Your task to perform on an android device: toggle priority inbox in the gmail app Image 0: 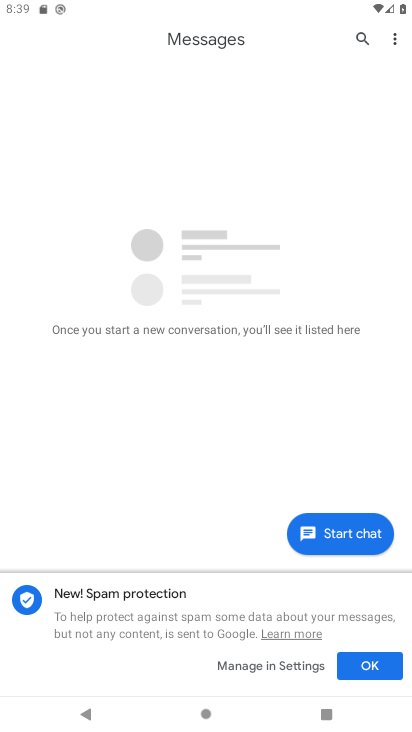
Step 0: press home button
Your task to perform on an android device: toggle priority inbox in the gmail app Image 1: 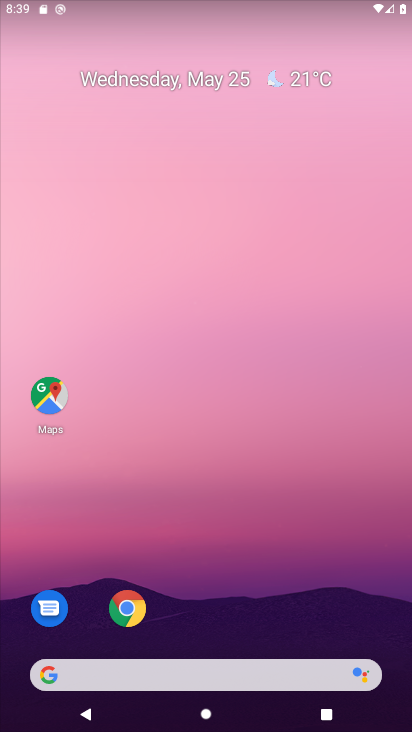
Step 1: drag from (222, 561) to (222, 31)
Your task to perform on an android device: toggle priority inbox in the gmail app Image 2: 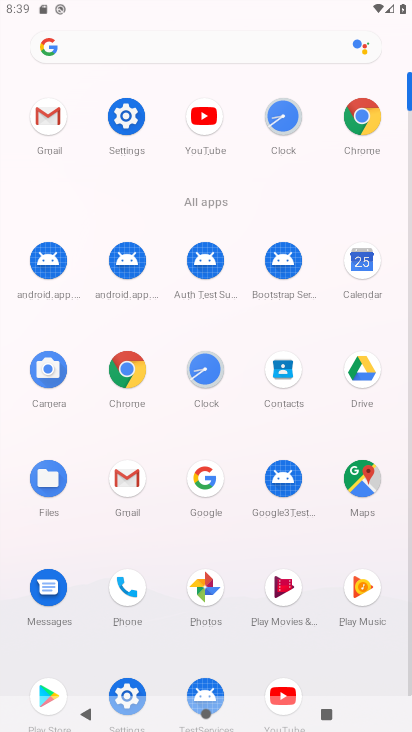
Step 2: click (115, 473)
Your task to perform on an android device: toggle priority inbox in the gmail app Image 3: 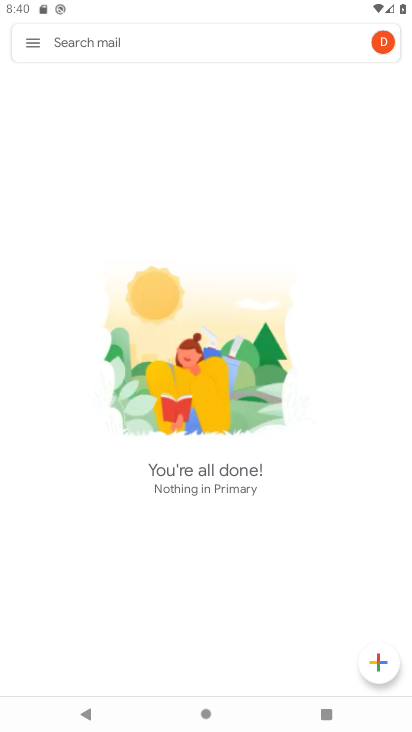
Step 3: click (33, 42)
Your task to perform on an android device: toggle priority inbox in the gmail app Image 4: 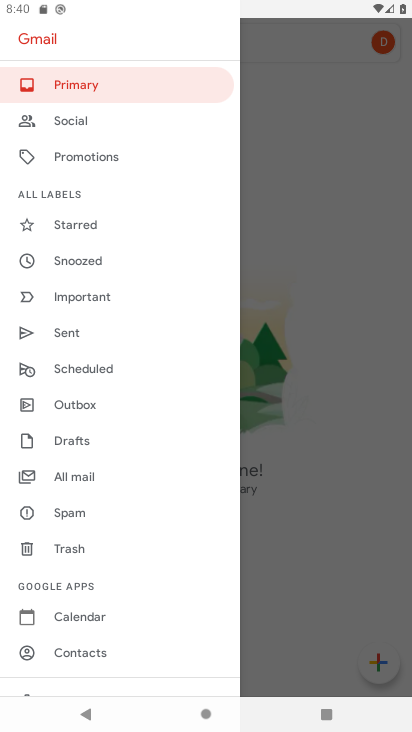
Step 4: drag from (86, 644) to (99, 223)
Your task to perform on an android device: toggle priority inbox in the gmail app Image 5: 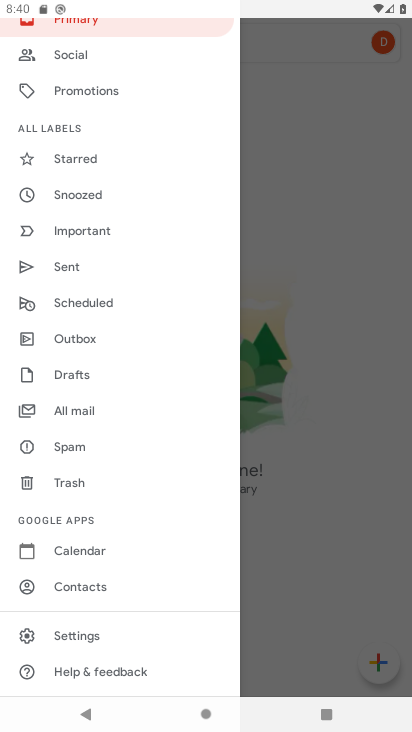
Step 5: click (71, 634)
Your task to perform on an android device: toggle priority inbox in the gmail app Image 6: 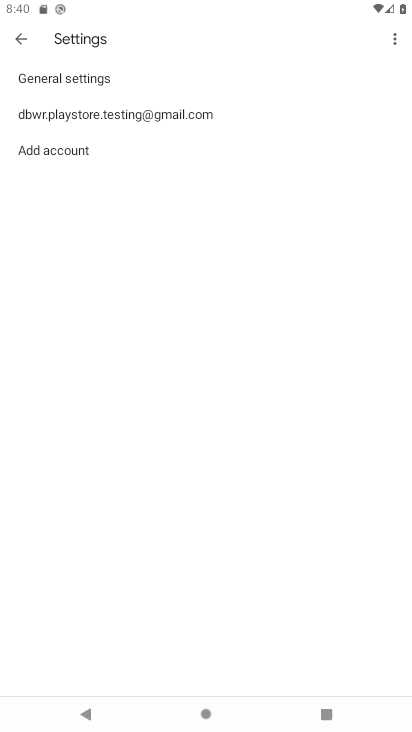
Step 6: click (124, 116)
Your task to perform on an android device: toggle priority inbox in the gmail app Image 7: 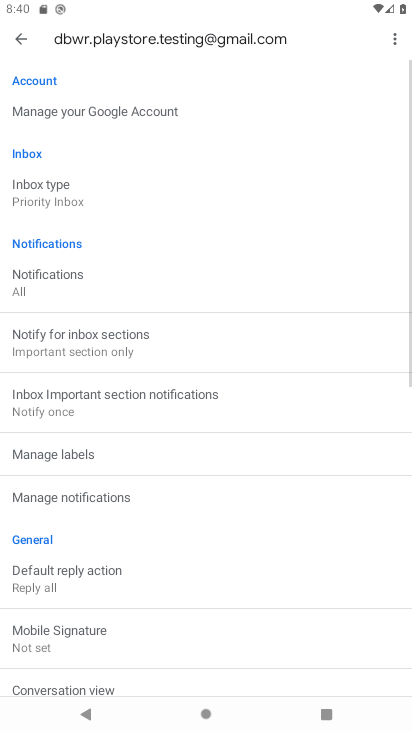
Step 7: click (71, 204)
Your task to perform on an android device: toggle priority inbox in the gmail app Image 8: 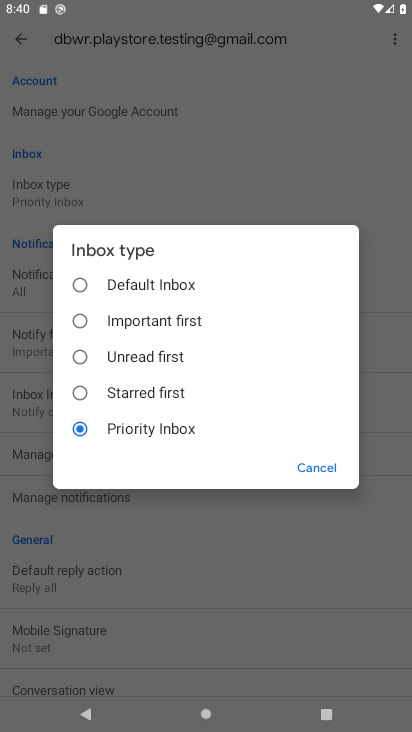
Step 8: click (316, 459)
Your task to perform on an android device: toggle priority inbox in the gmail app Image 9: 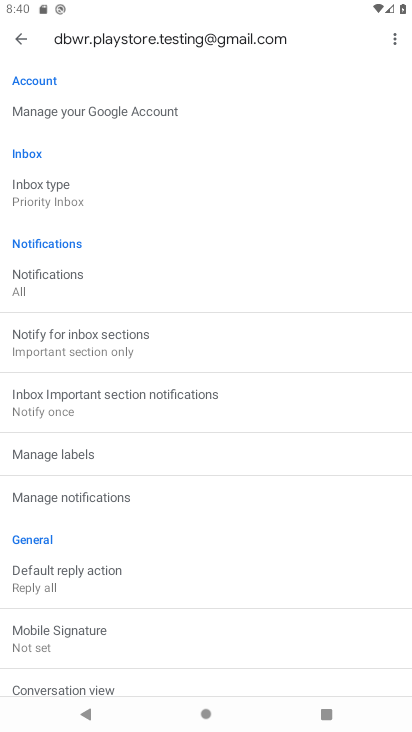
Step 9: task complete